Your task to perform on an android device: Search for rayovac triple a on amazon.com, select the first entry, add it to the cart, then select checkout. Image 0: 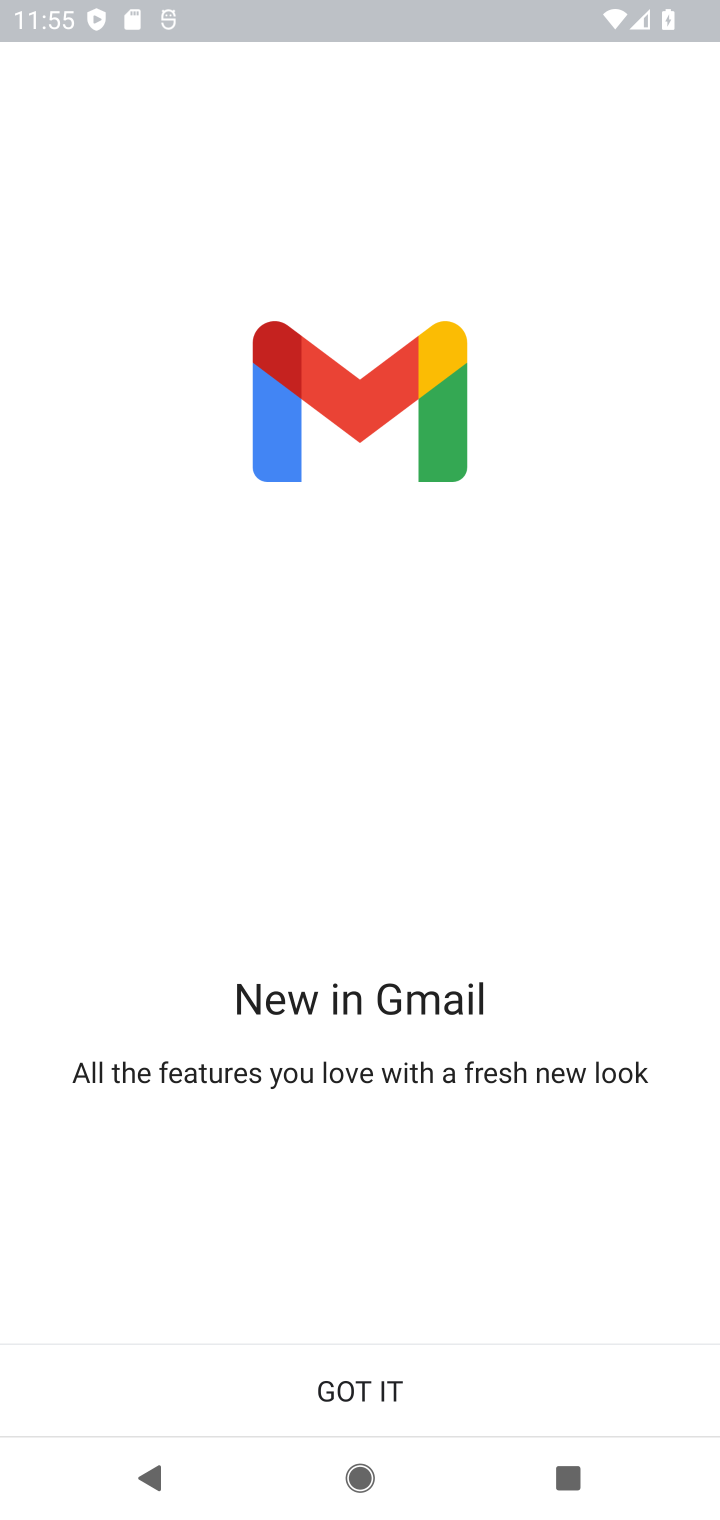
Step 0: press home button
Your task to perform on an android device: Search for rayovac triple a on amazon.com, select the first entry, add it to the cart, then select checkout. Image 1: 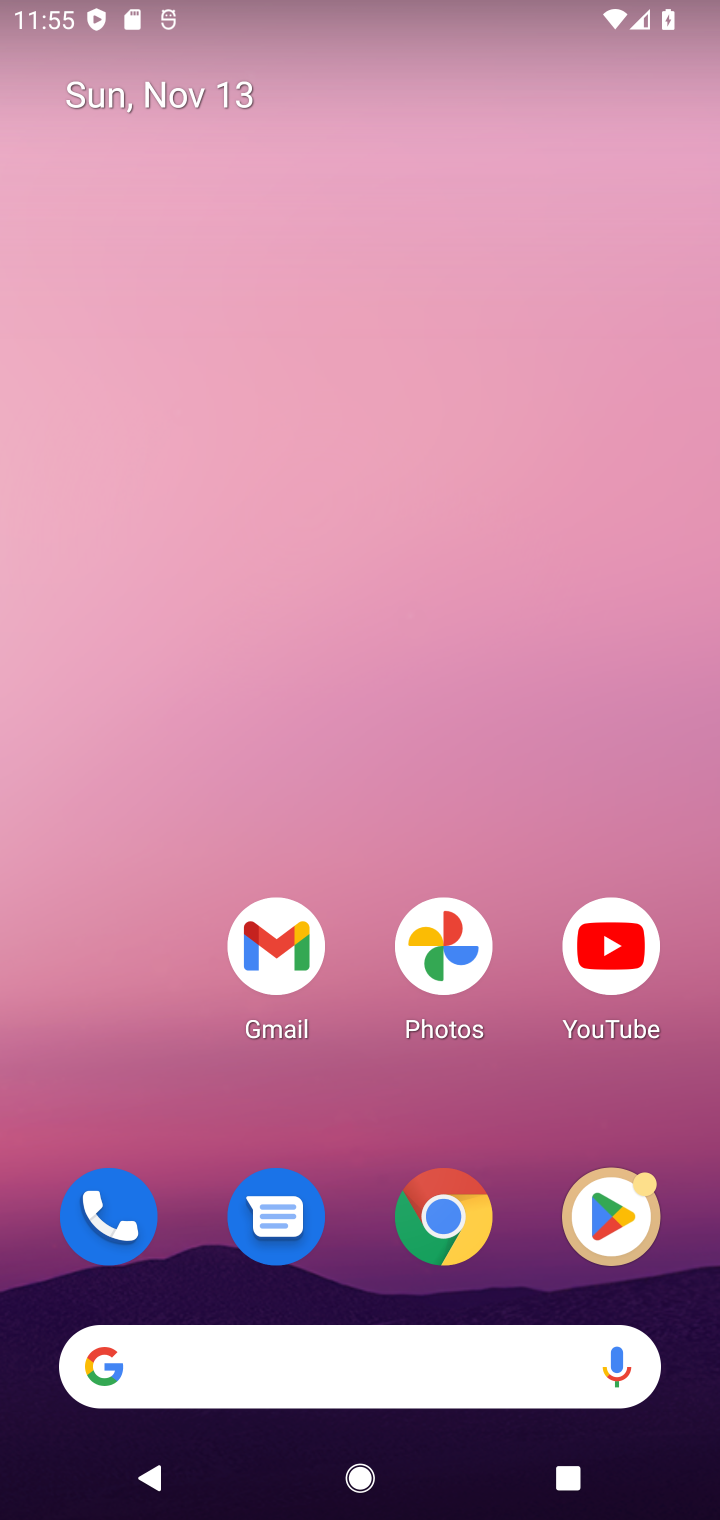
Step 1: click (455, 1214)
Your task to perform on an android device: Search for rayovac triple a on amazon.com, select the first entry, add it to the cart, then select checkout. Image 2: 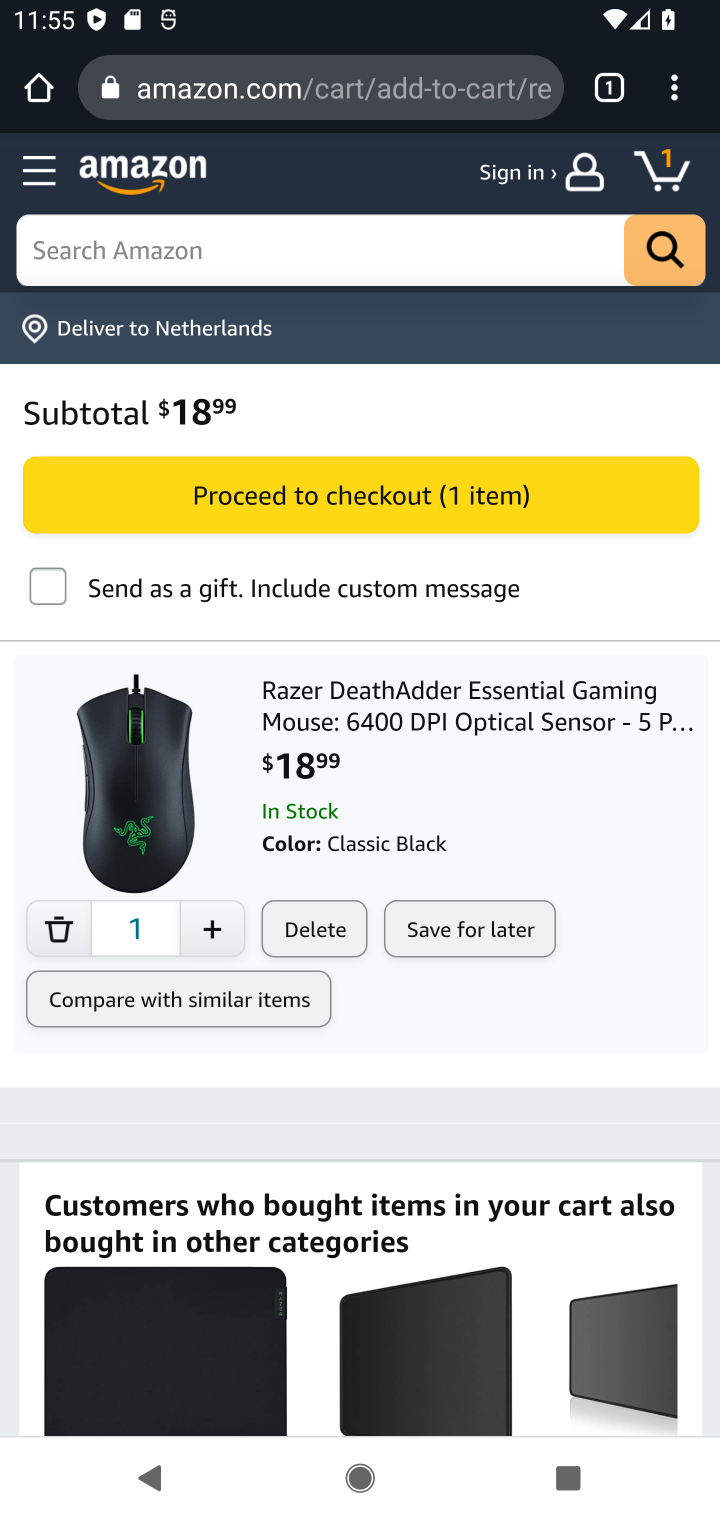
Step 2: click (102, 233)
Your task to perform on an android device: Search for rayovac triple a on amazon.com, select the first entry, add it to the cart, then select checkout. Image 3: 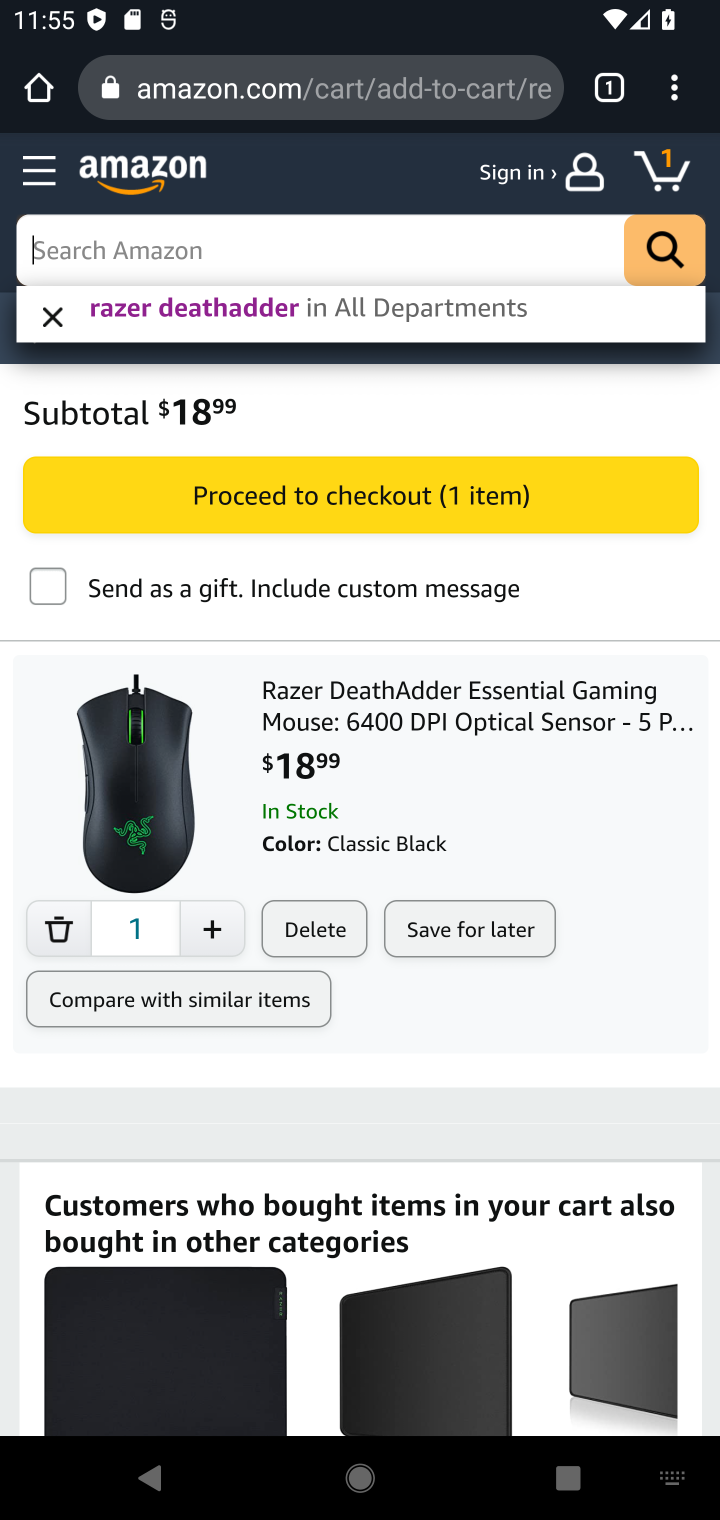
Step 3: type "rayovac triple a battery"
Your task to perform on an android device: Search for rayovac triple a on amazon.com, select the first entry, add it to the cart, then select checkout. Image 4: 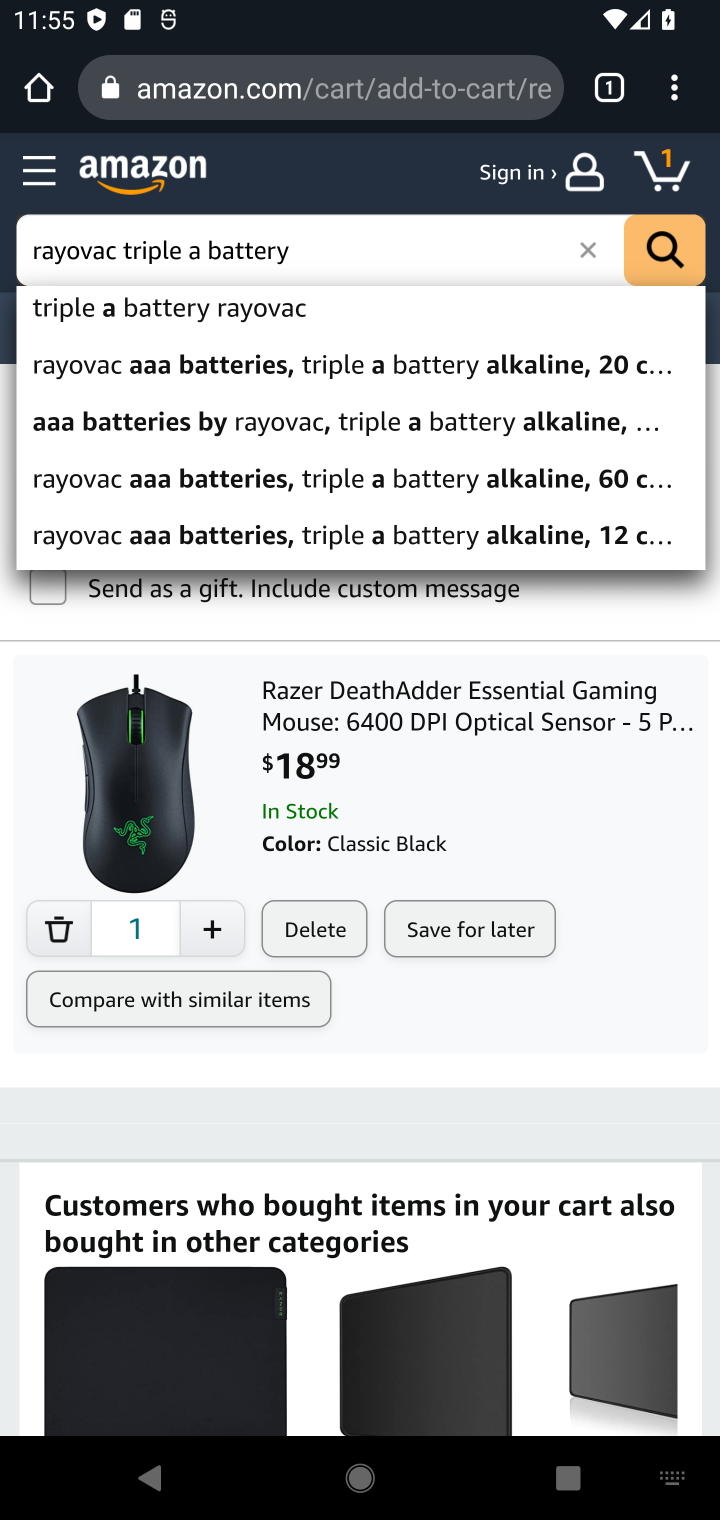
Step 4: click (275, 311)
Your task to perform on an android device: Search for rayovac triple a on amazon.com, select the first entry, add it to the cart, then select checkout. Image 5: 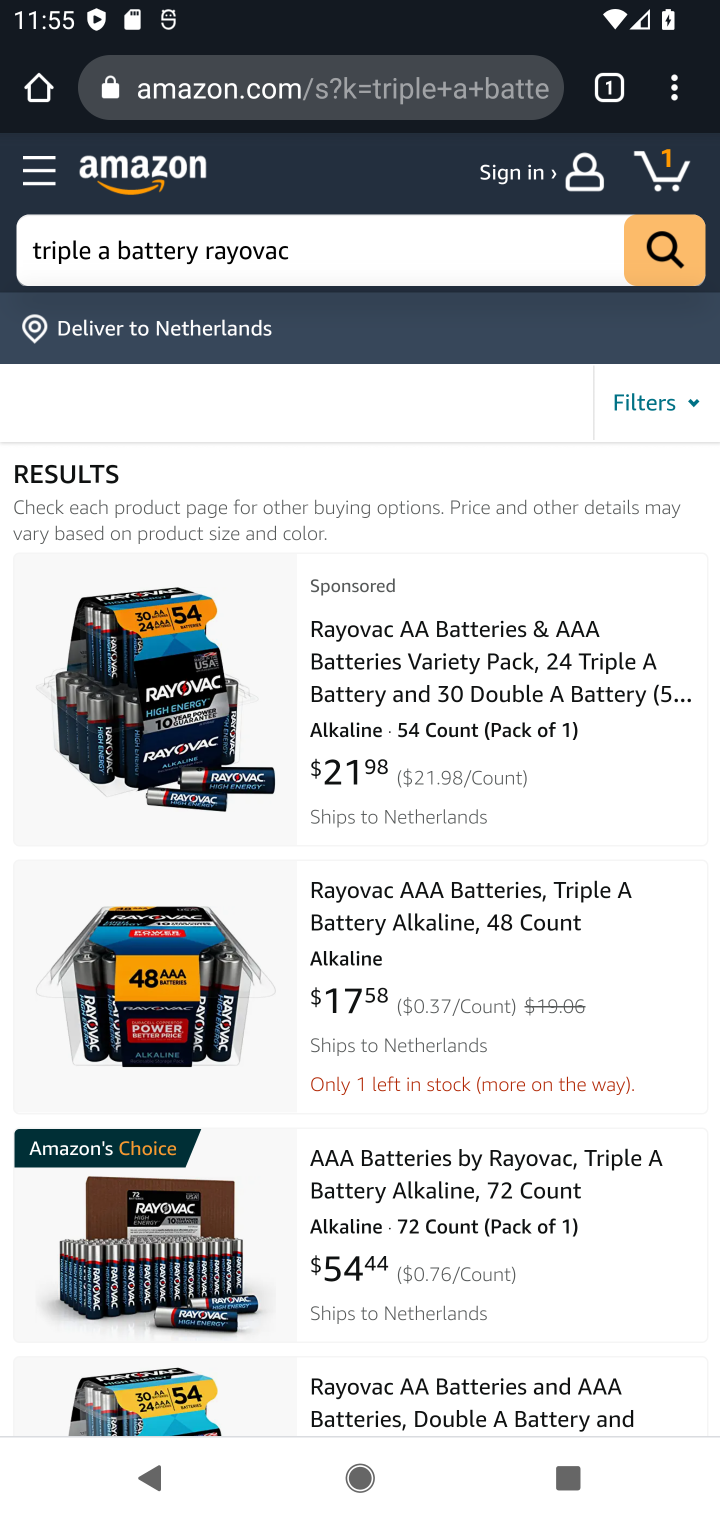
Step 5: click (450, 675)
Your task to perform on an android device: Search for rayovac triple a on amazon.com, select the first entry, add it to the cart, then select checkout. Image 6: 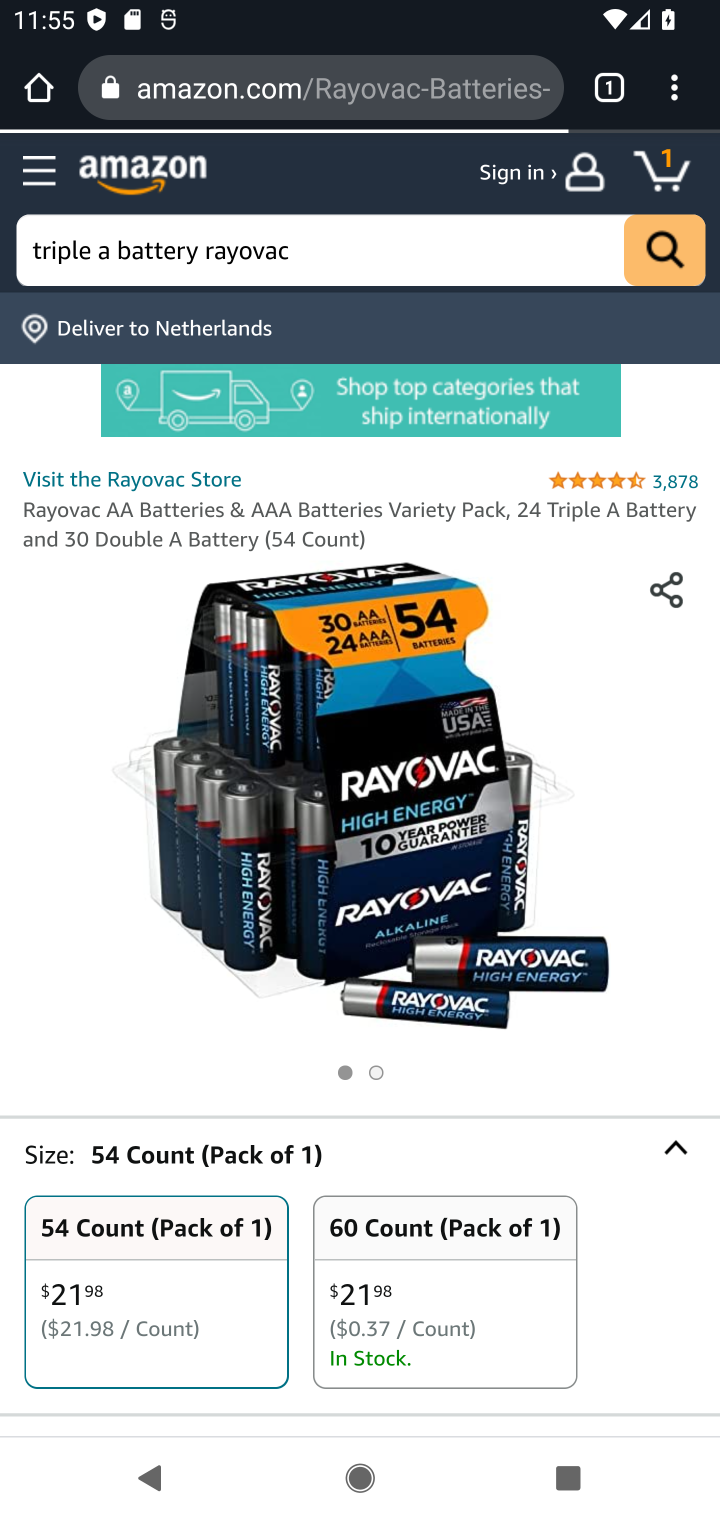
Step 6: drag from (642, 1345) to (563, 825)
Your task to perform on an android device: Search for rayovac triple a on amazon.com, select the first entry, add it to the cart, then select checkout. Image 7: 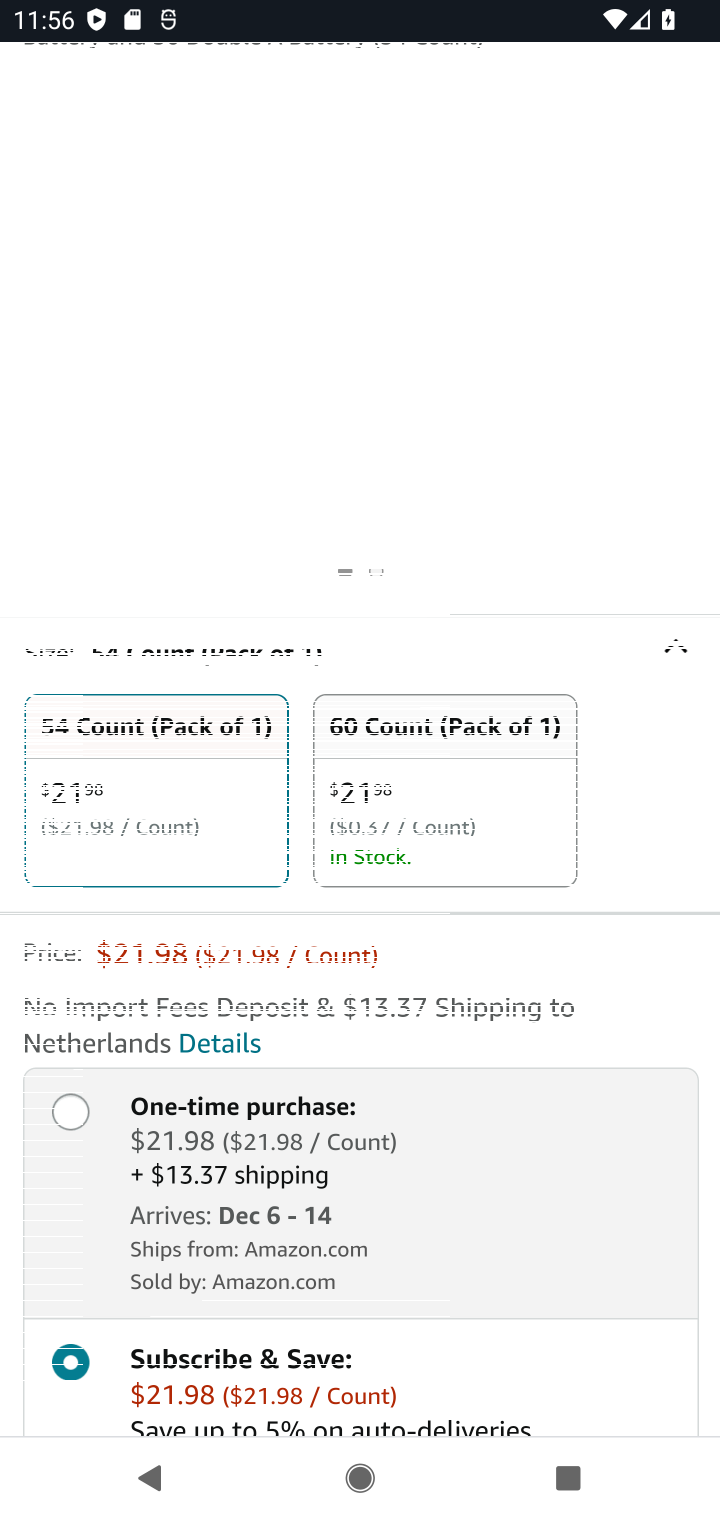
Step 7: drag from (587, 1303) to (510, 811)
Your task to perform on an android device: Search for rayovac triple a on amazon.com, select the first entry, add it to the cart, then select checkout. Image 8: 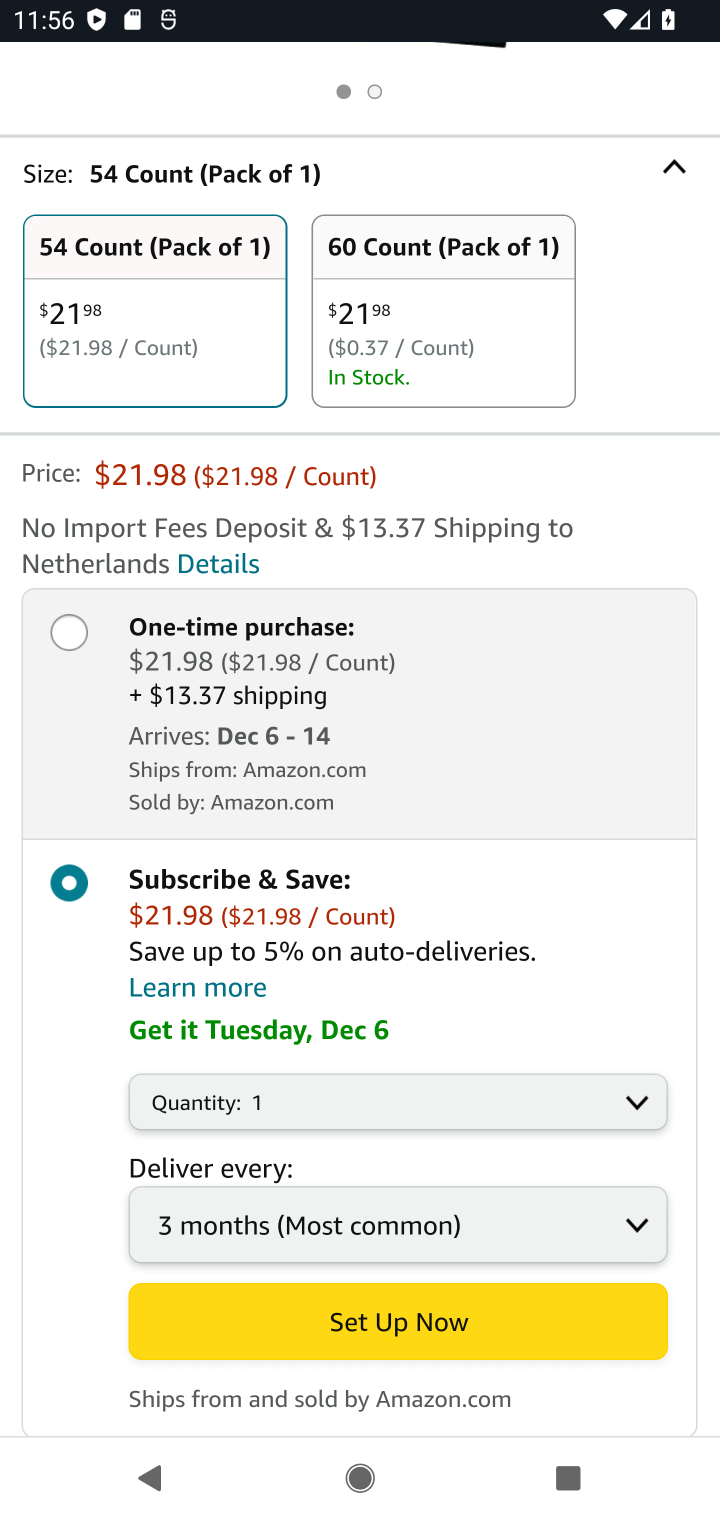
Step 8: drag from (564, 884) to (500, 339)
Your task to perform on an android device: Search for rayovac triple a on amazon.com, select the first entry, add it to the cart, then select checkout. Image 9: 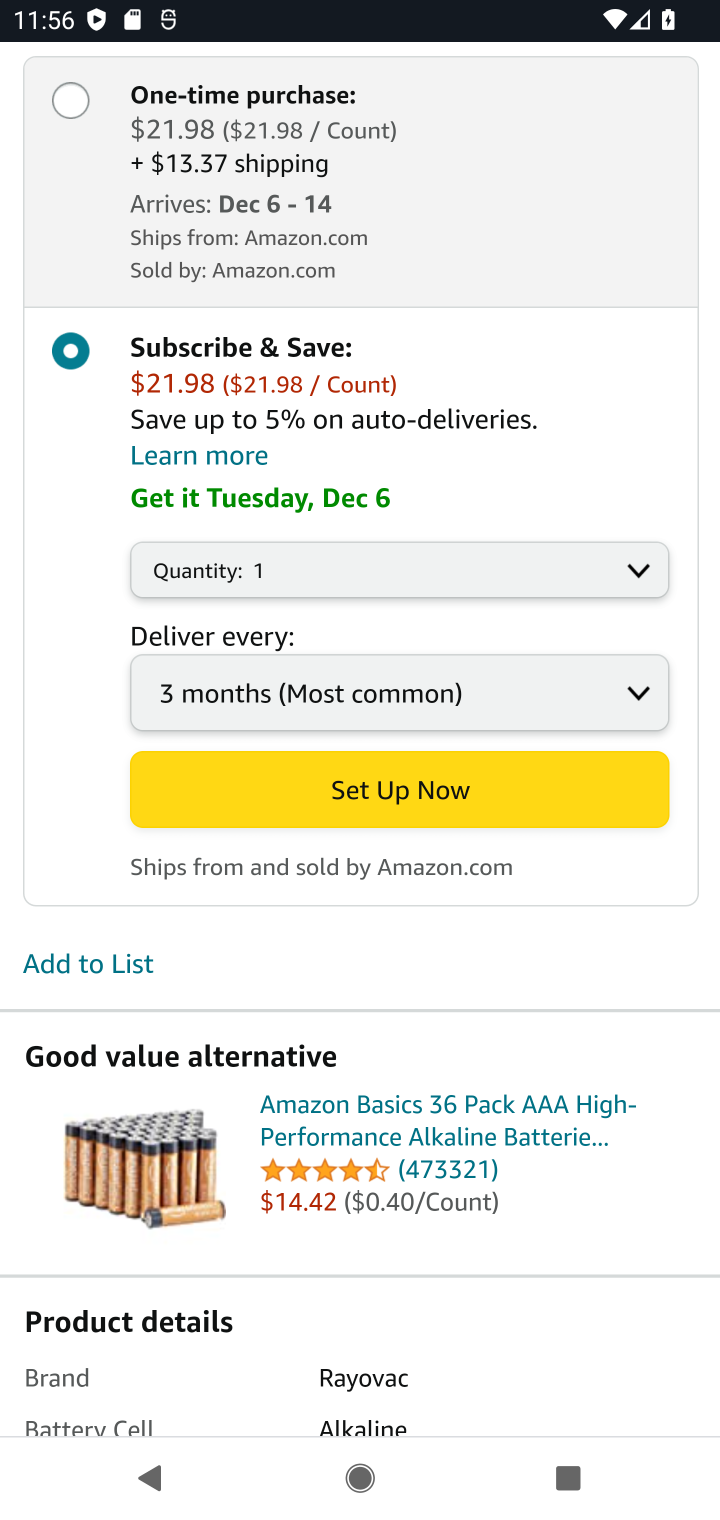
Step 9: press back button
Your task to perform on an android device: Search for rayovac triple a on amazon.com, select the first entry, add it to the cart, then select checkout. Image 10: 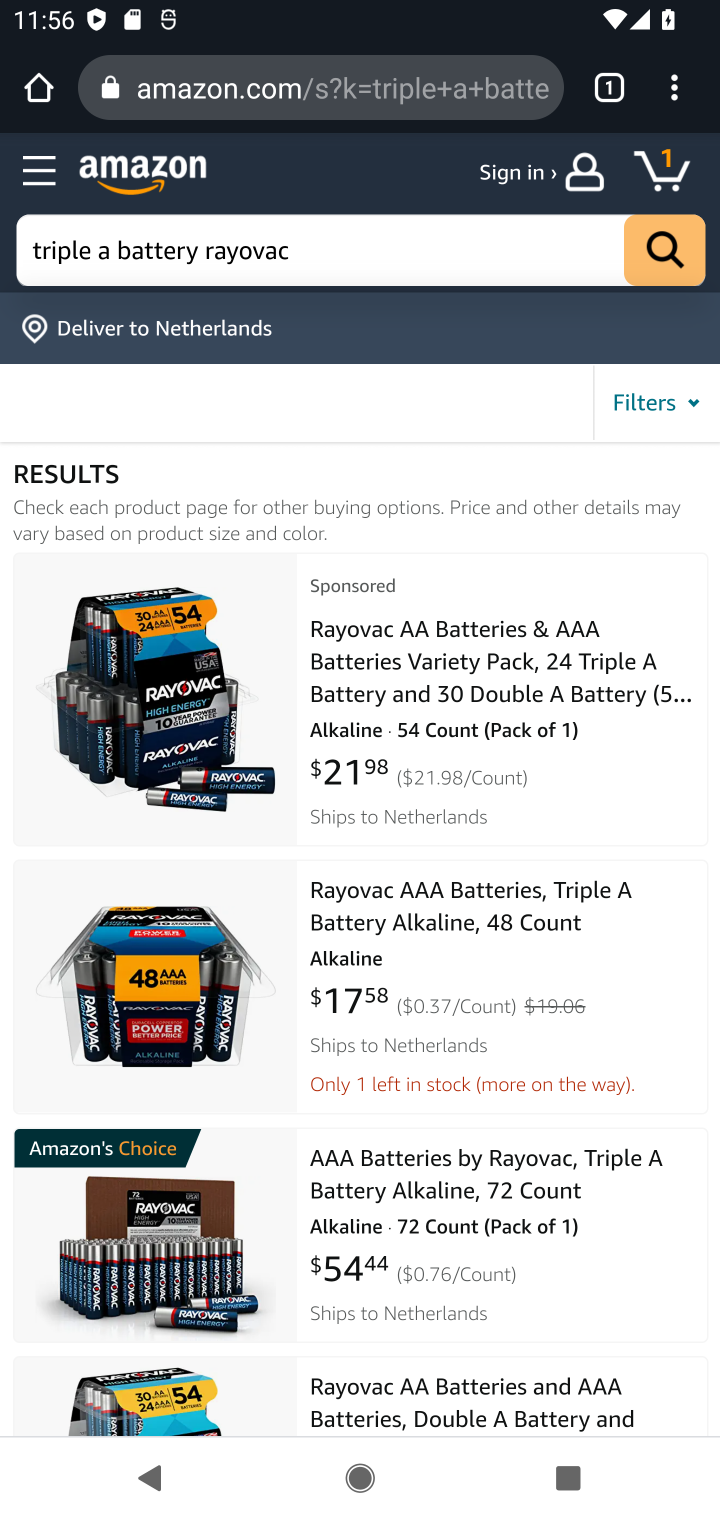
Step 10: click (372, 1180)
Your task to perform on an android device: Search for rayovac triple a on amazon.com, select the first entry, add it to the cart, then select checkout. Image 11: 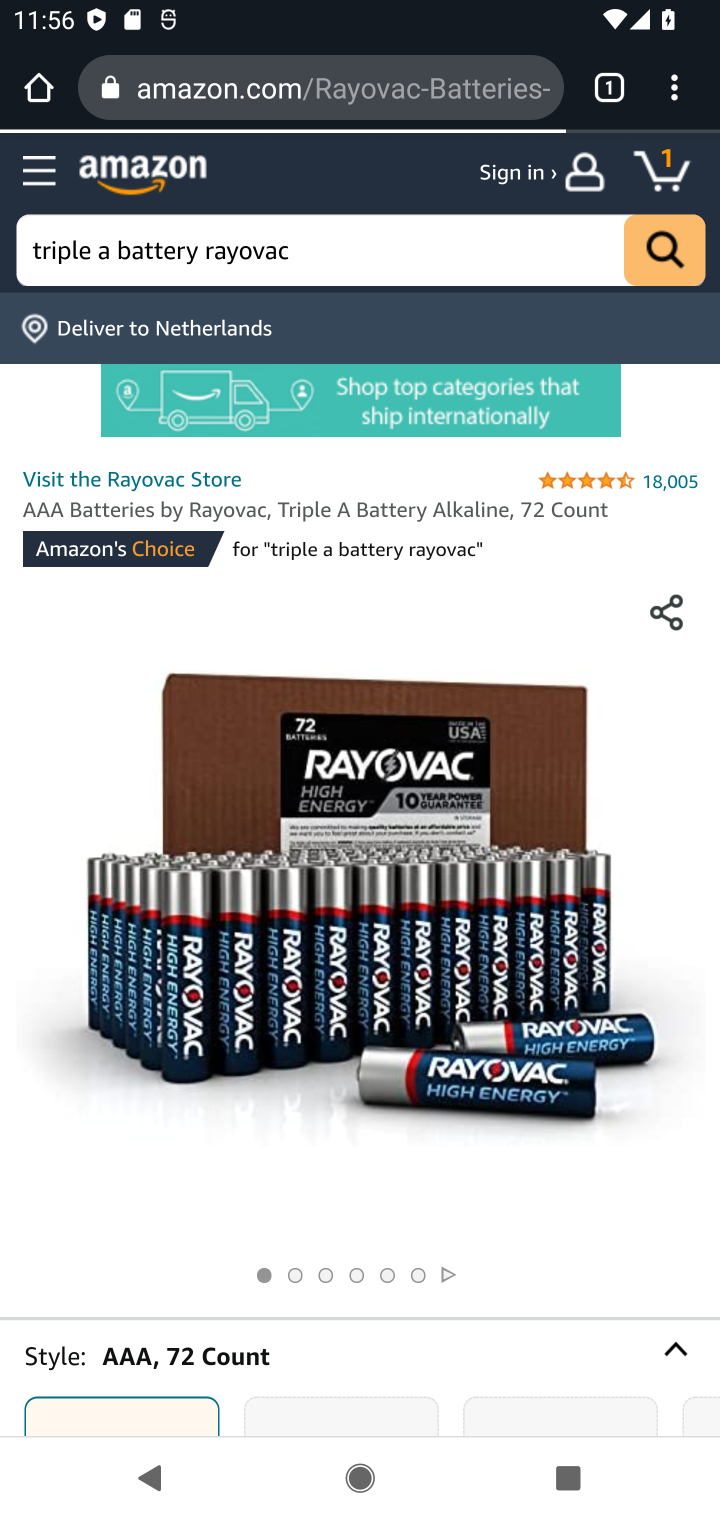
Step 11: drag from (516, 1287) to (425, 577)
Your task to perform on an android device: Search for rayovac triple a on amazon.com, select the first entry, add it to the cart, then select checkout. Image 12: 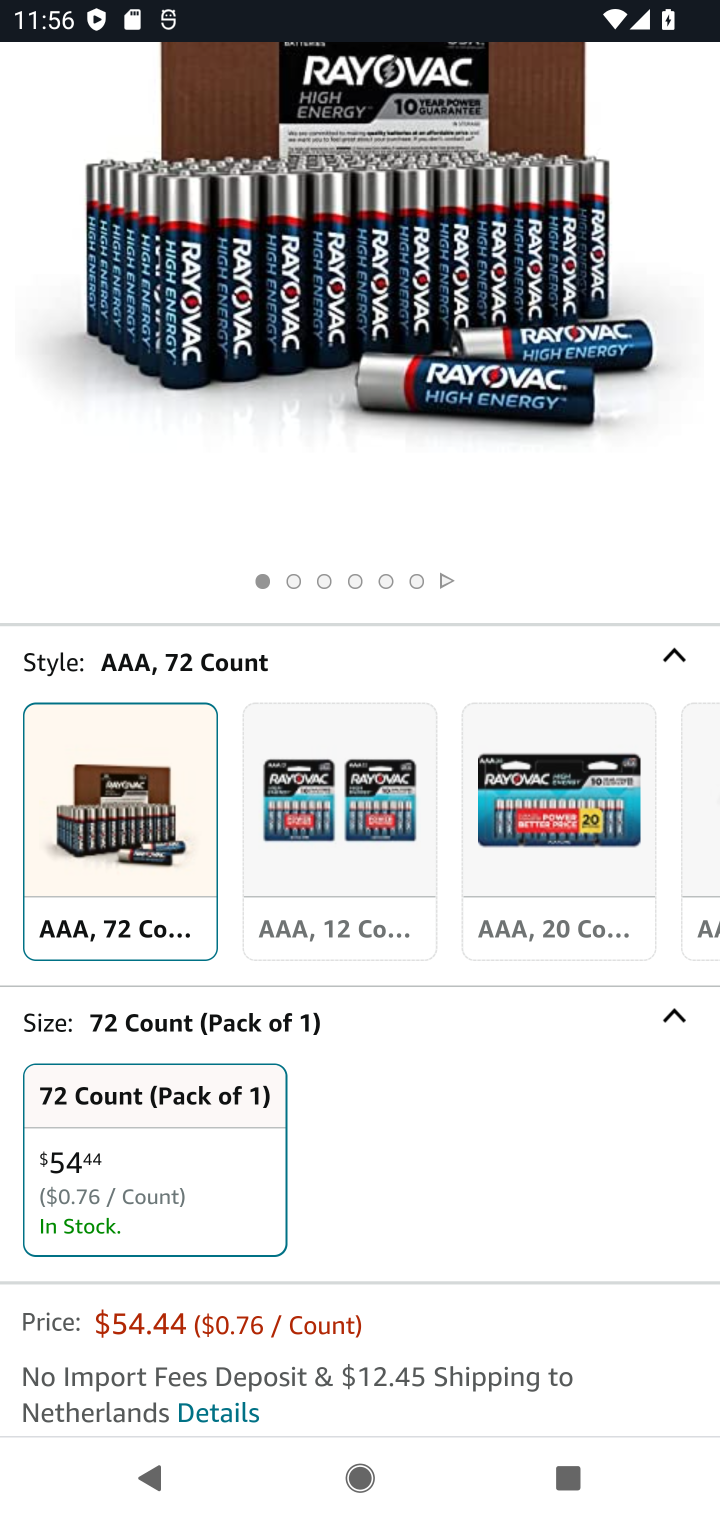
Step 12: drag from (292, 526) to (233, 212)
Your task to perform on an android device: Search for rayovac triple a on amazon.com, select the first entry, add it to the cart, then select checkout. Image 13: 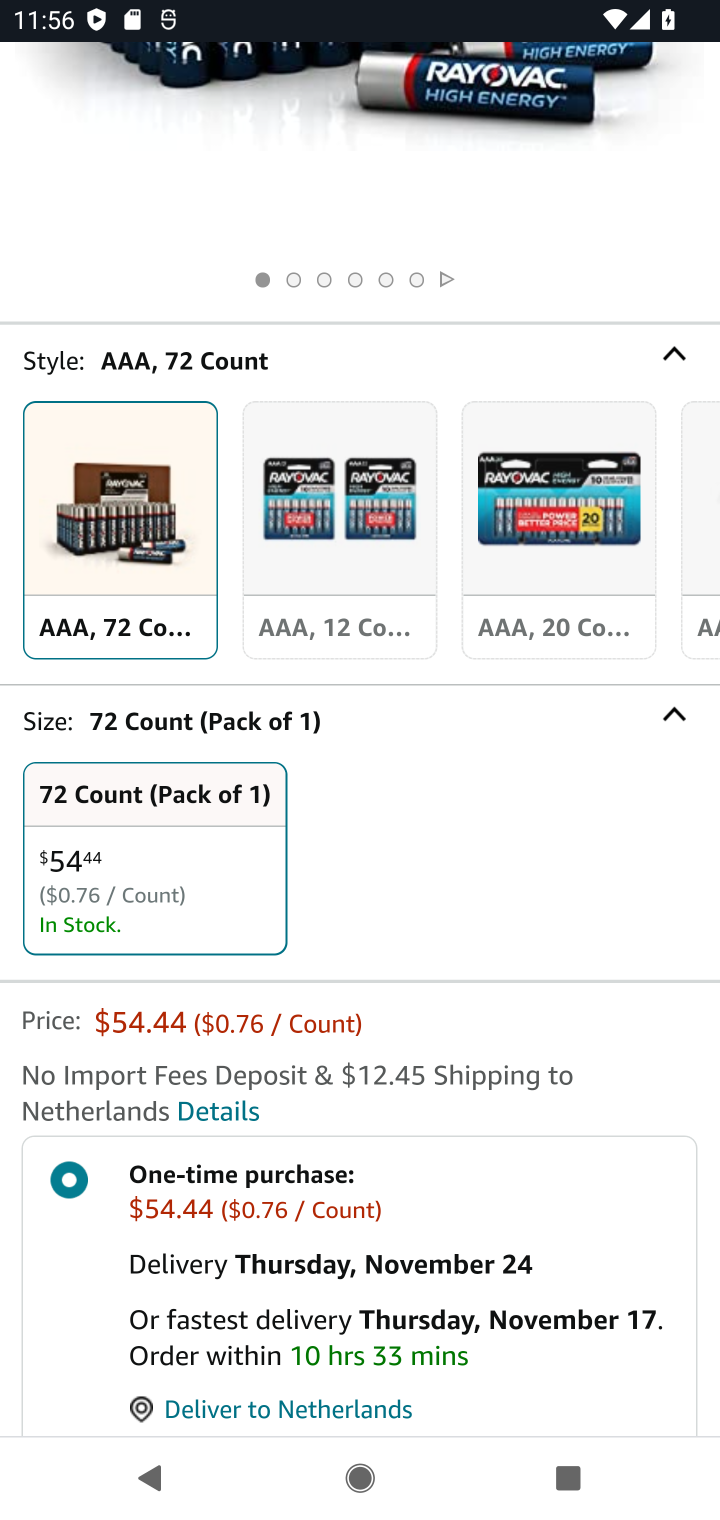
Step 13: drag from (487, 1133) to (344, 403)
Your task to perform on an android device: Search for rayovac triple a on amazon.com, select the first entry, add it to the cart, then select checkout. Image 14: 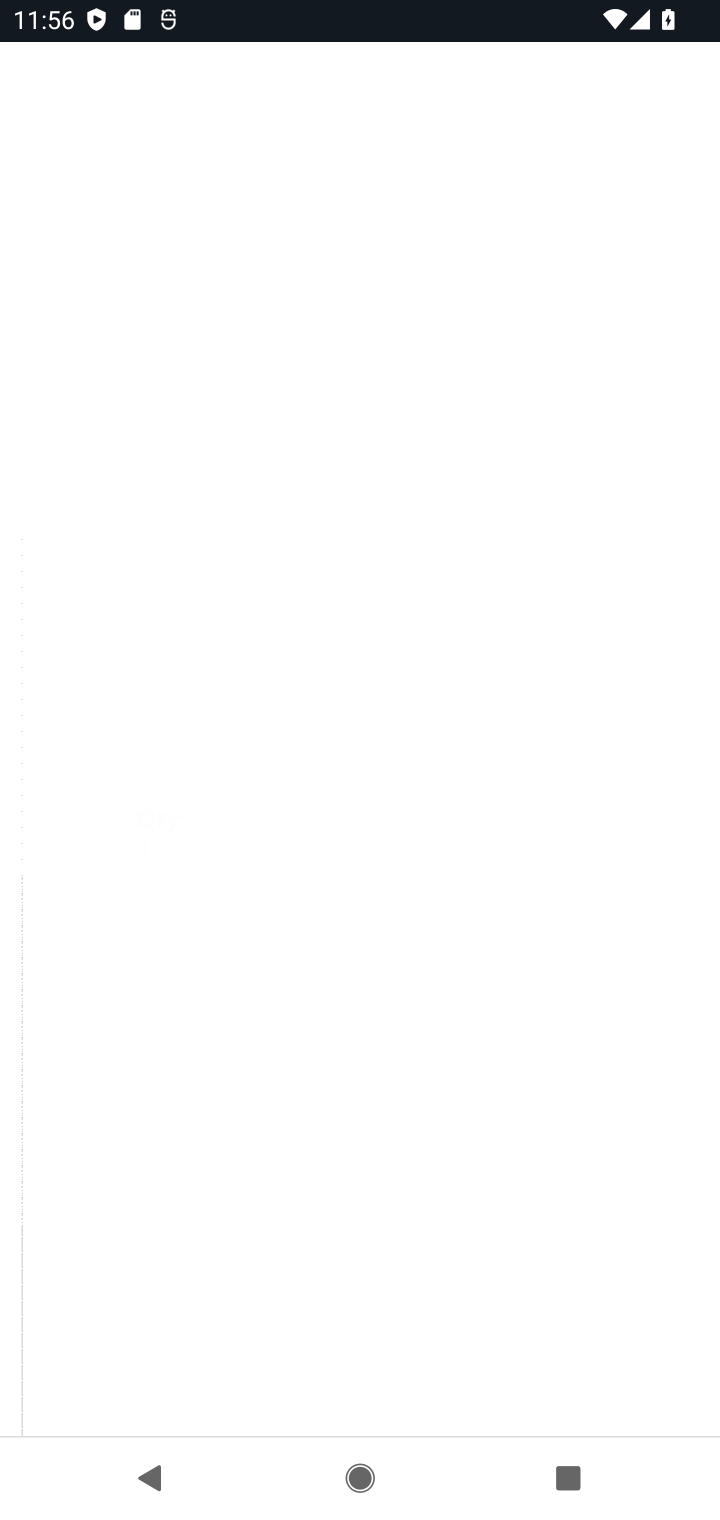
Step 14: click (452, 941)
Your task to perform on an android device: Search for rayovac triple a on amazon.com, select the first entry, add it to the cart, then select checkout. Image 15: 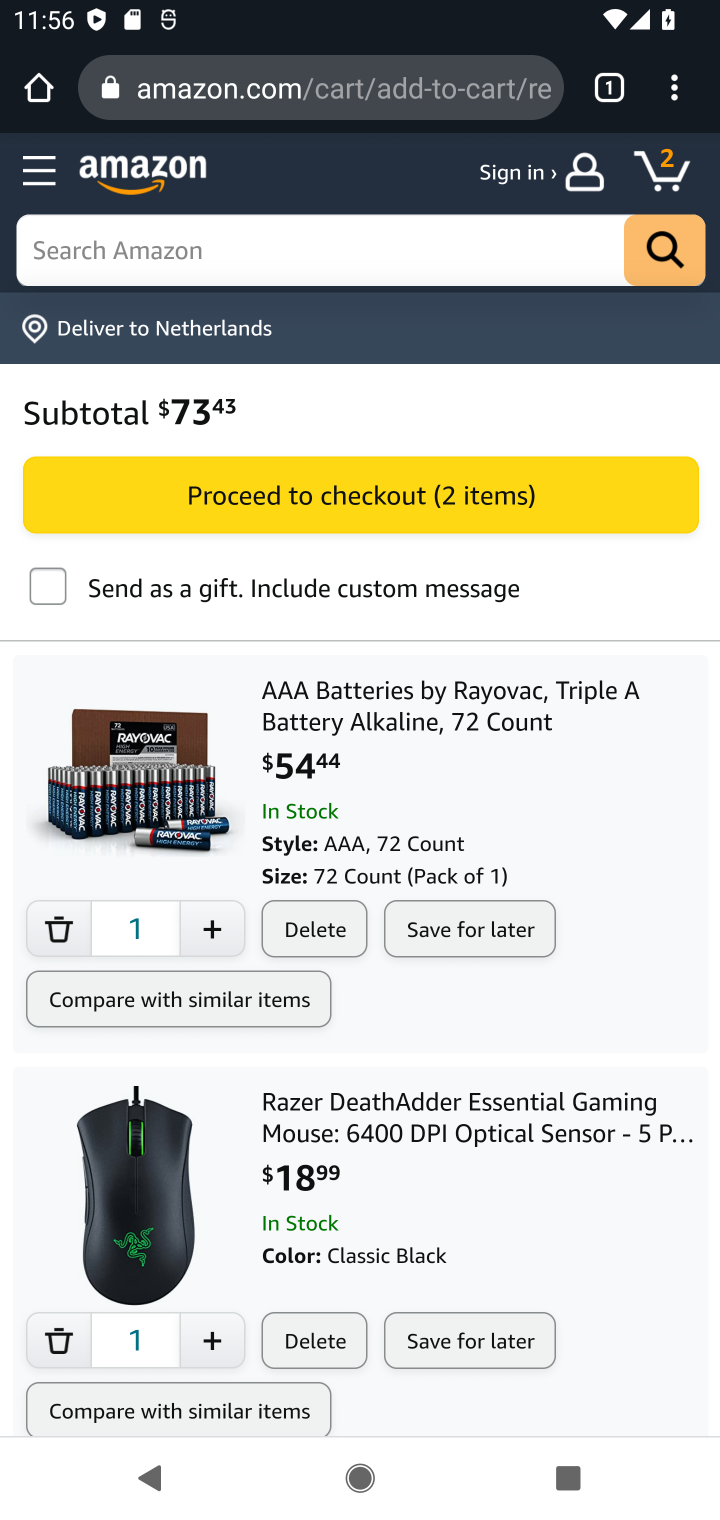
Step 15: click (440, 494)
Your task to perform on an android device: Search for rayovac triple a on amazon.com, select the first entry, add it to the cart, then select checkout. Image 16: 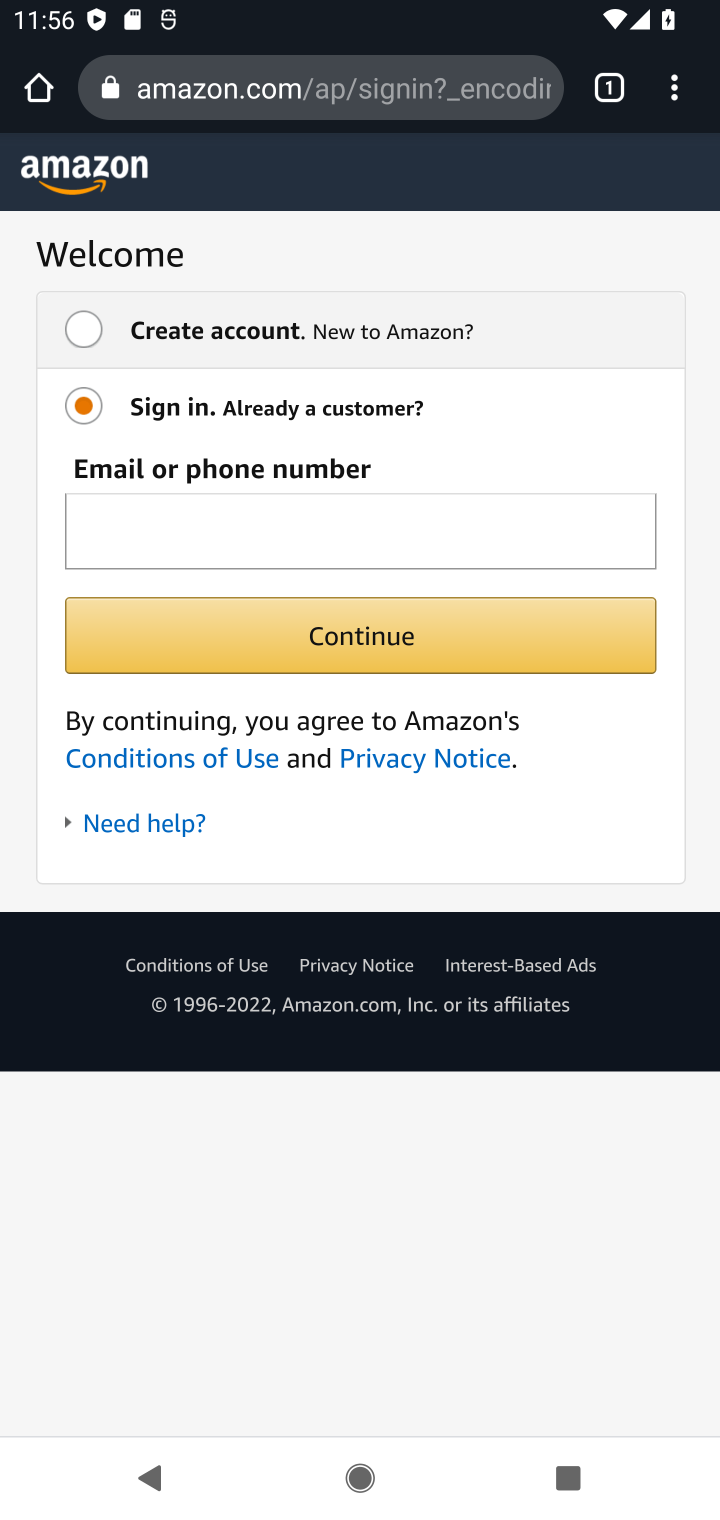
Step 16: task complete